Your task to perform on an android device: change the clock display to digital Image 0: 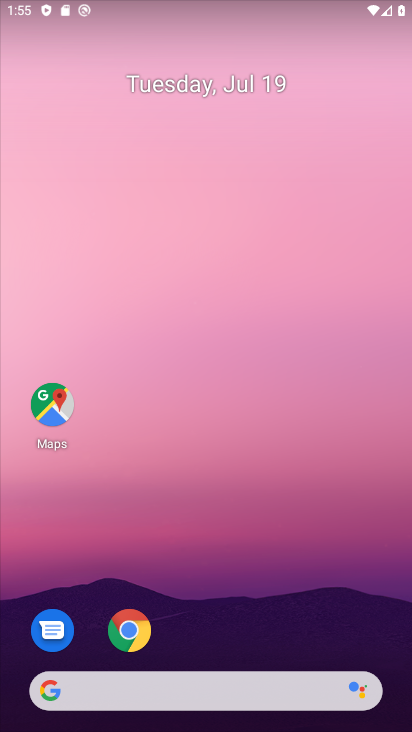
Step 0: drag from (284, 639) to (292, 25)
Your task to perform on an android device: change the clock display to digital Image 1: 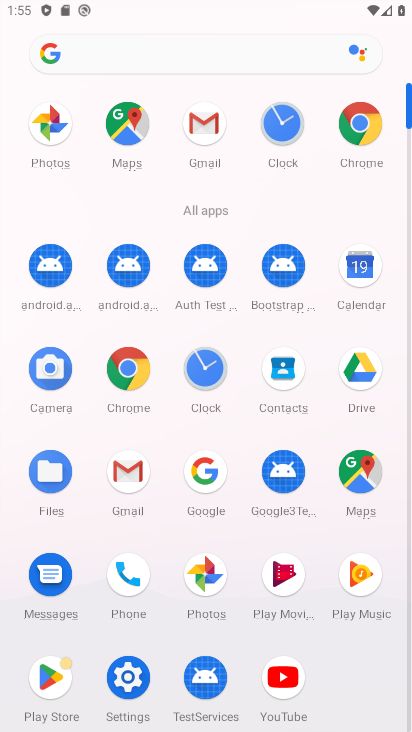
Step 1: click (291, 116)
Your task to perform on an android device: change the clock display to digital Image 2: 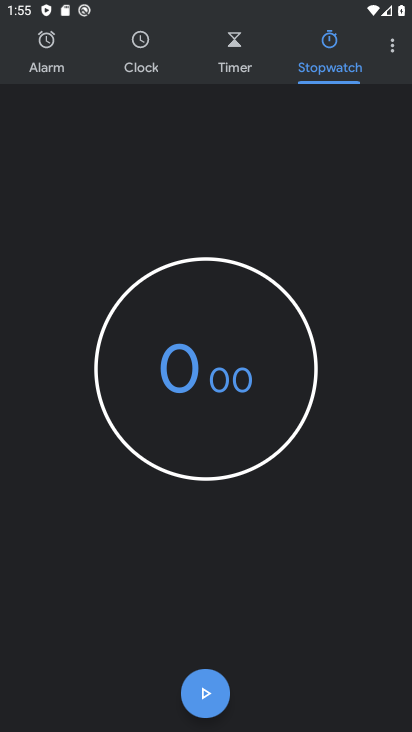
Step 2: click (150, 64)
Your task to perform on an android device: change the clock display to digital Image 3: 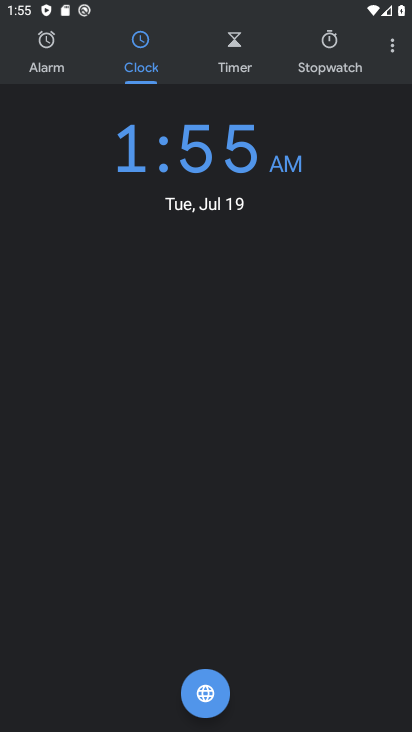
Step 3: task complete